Your task to perform on an android device: find photos in the google photos app Image 0: 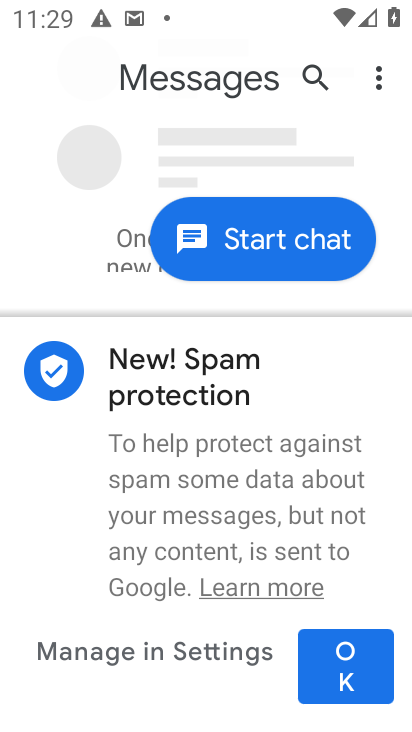
Step 0: press home button
Your task to perform on an android device: find photos in the google photos app Image 1: 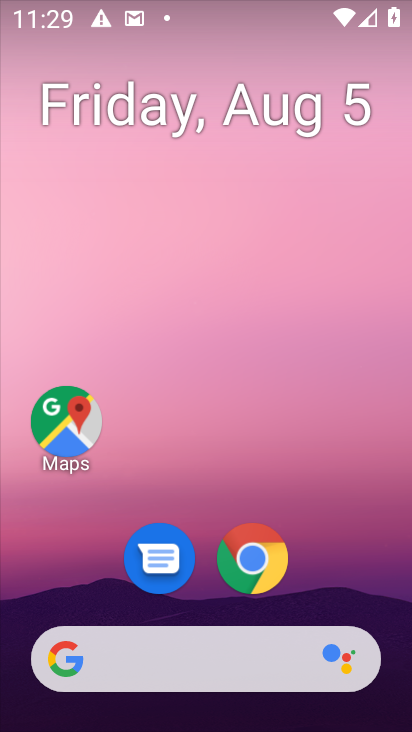
Step 1: drag from (349, 582) to (379, 208)
Your task to perform on an android device: find photos in the google photos app Image 2: 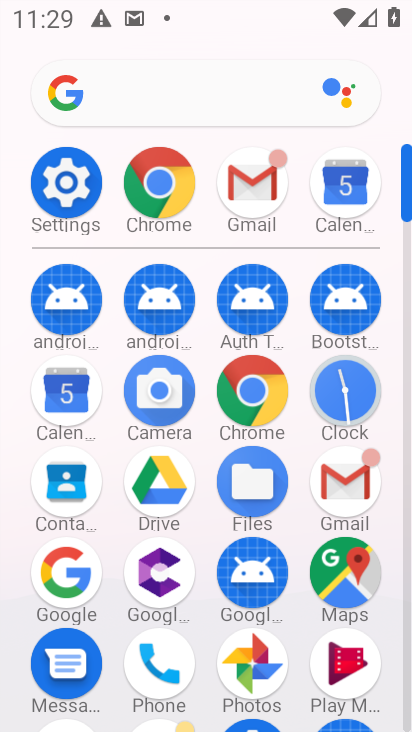
Step 2: click (259, 663)
Your task to perform on an android device: find photos in the google photos app Image 3: 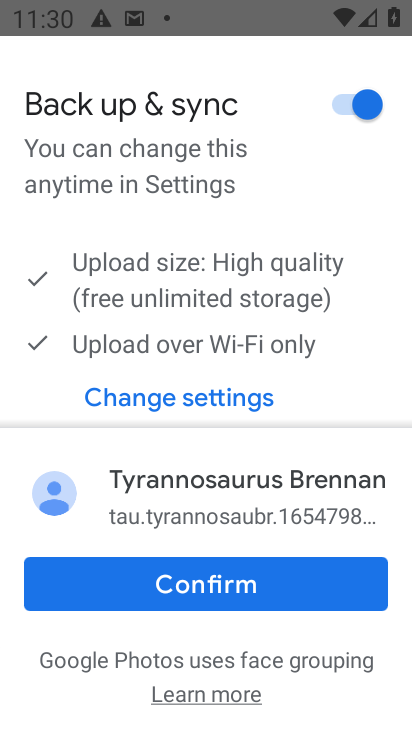
Step 3: click (314, 586)
Your task to perform on an android device: find photos in the google photos app Image 4: 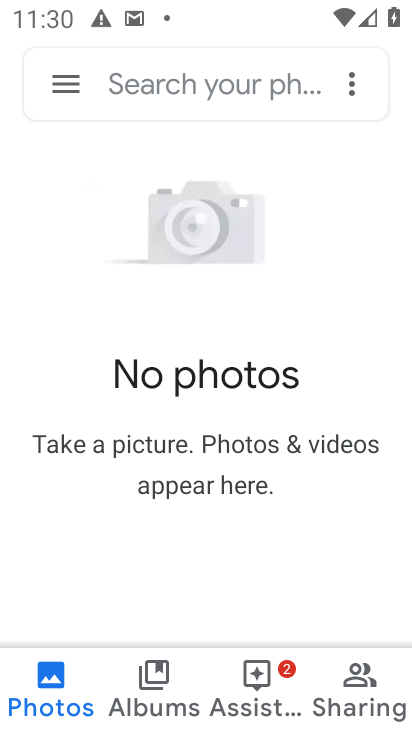
Step 4: task complete